Your task to perform on an android device: check storage Image 0: 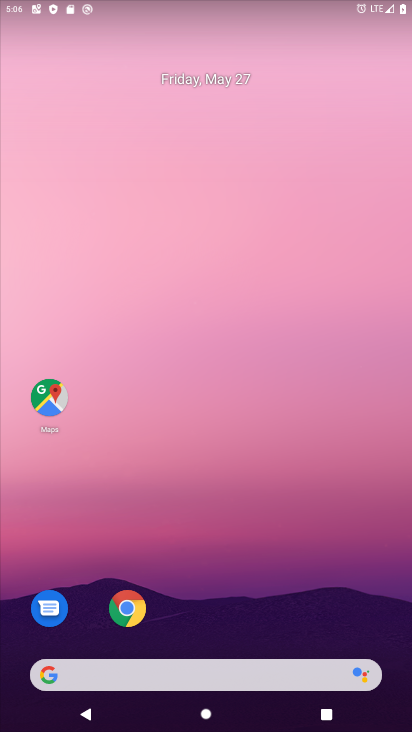
Step 0: drag from (237, 546) to (295, 189)
Your task to perform on an android device: check storage Image 1: 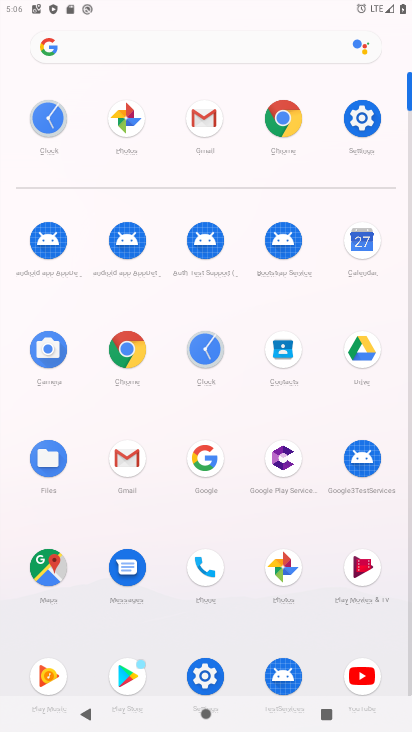
Step 1: click (207, 351)
Your task to perform on an android device: check storage Image 2: 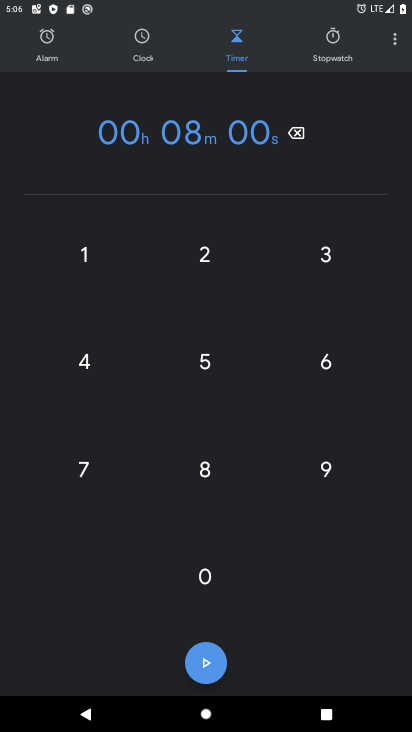
Step 2: press home button
Your task to perform on an android device: check storage Image 3: 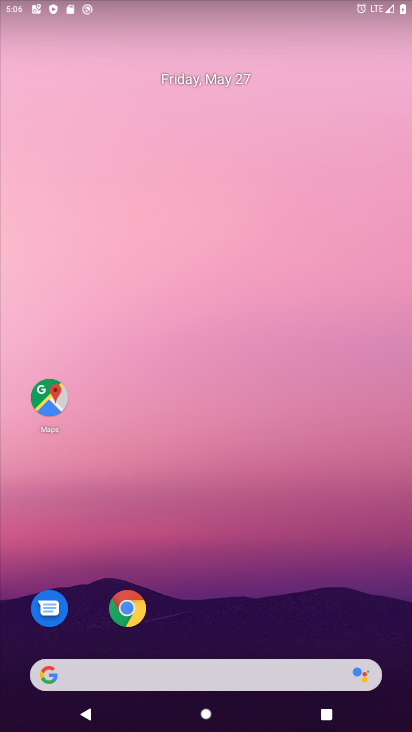
Step 3: drag from (210, 666) to (234, 413)
Your task to perform on an android device: check storage Image 4: 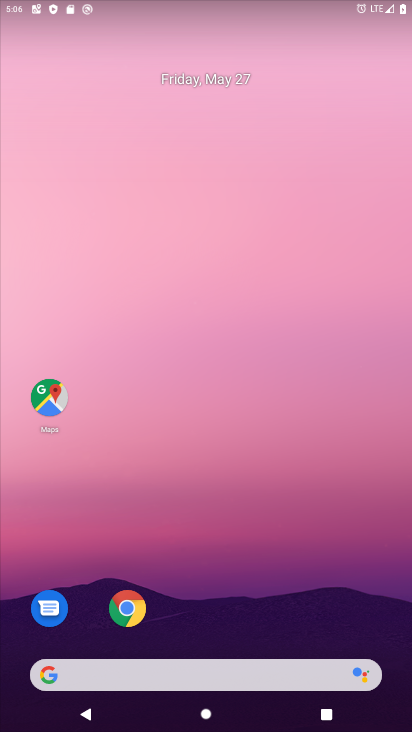
Step 4: drag from (261, 650) to (291, 239)
Your task to perform on an android device: check storage Image 5: 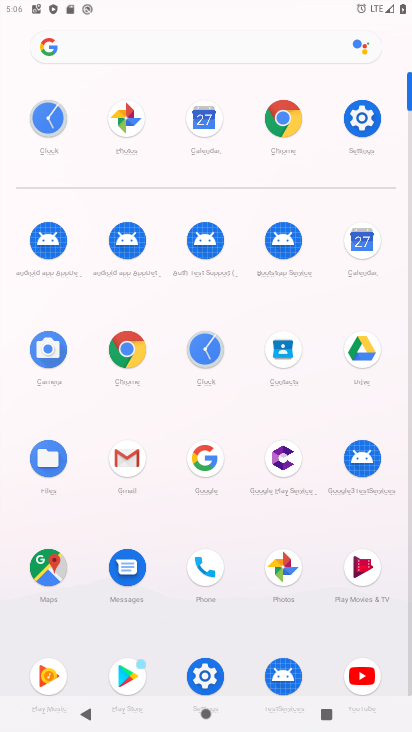
Step 5: click (355, 121)
Your task to perform on an android device: check storage Image 6: 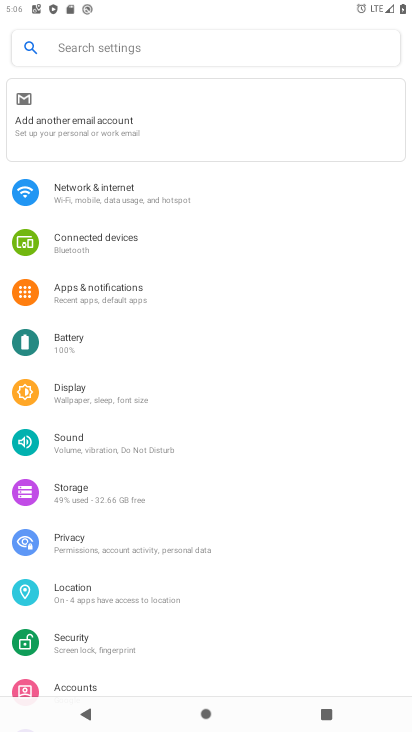
Step 6: click (60, 487)
Your task to perform on an android device: check storage Image 7: 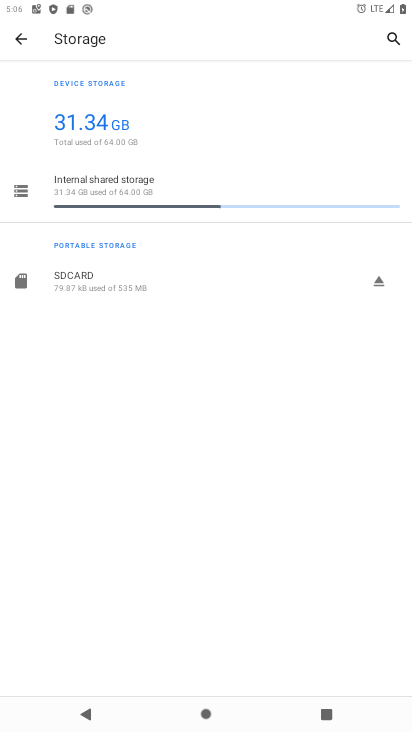
Step 7: task complete